Your task to perform on an android device: What's a good restaurant in Seattle? Image 0: 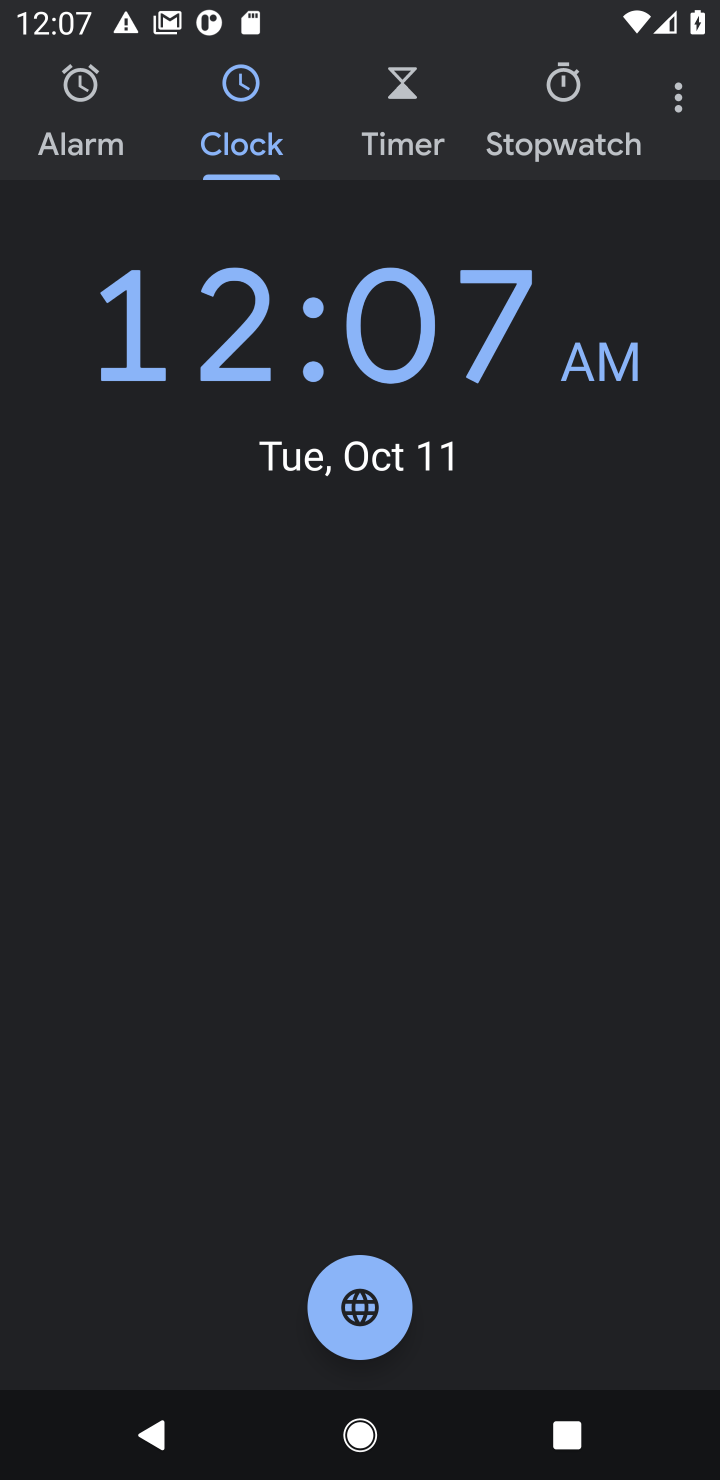
Step 0: press home button
Your task to perform on an android device: What's a good restaurant in Seattle? Image 1: 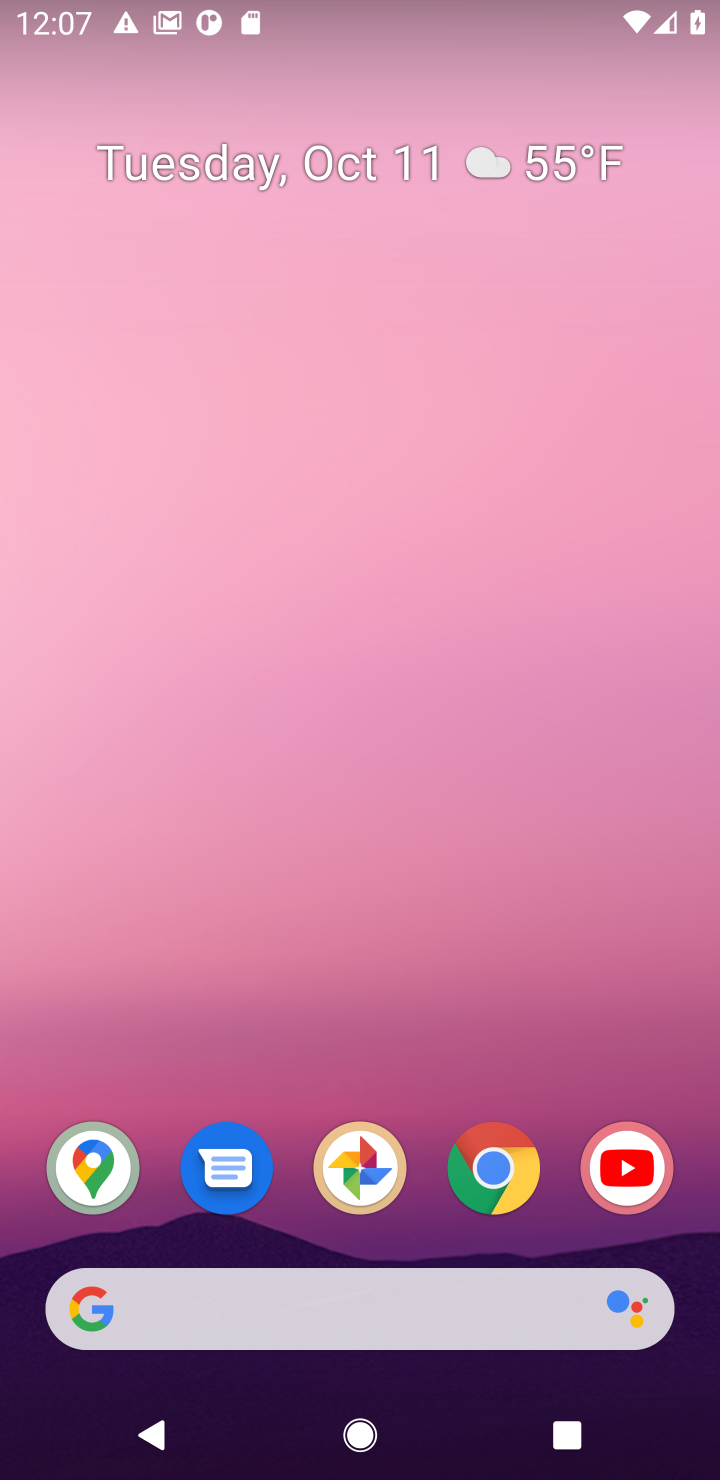
Step 1: drag from (377, 1236) to (419, 689)
Your task to perform on an android device: What's a good restaurant in Seattle? Image 2: 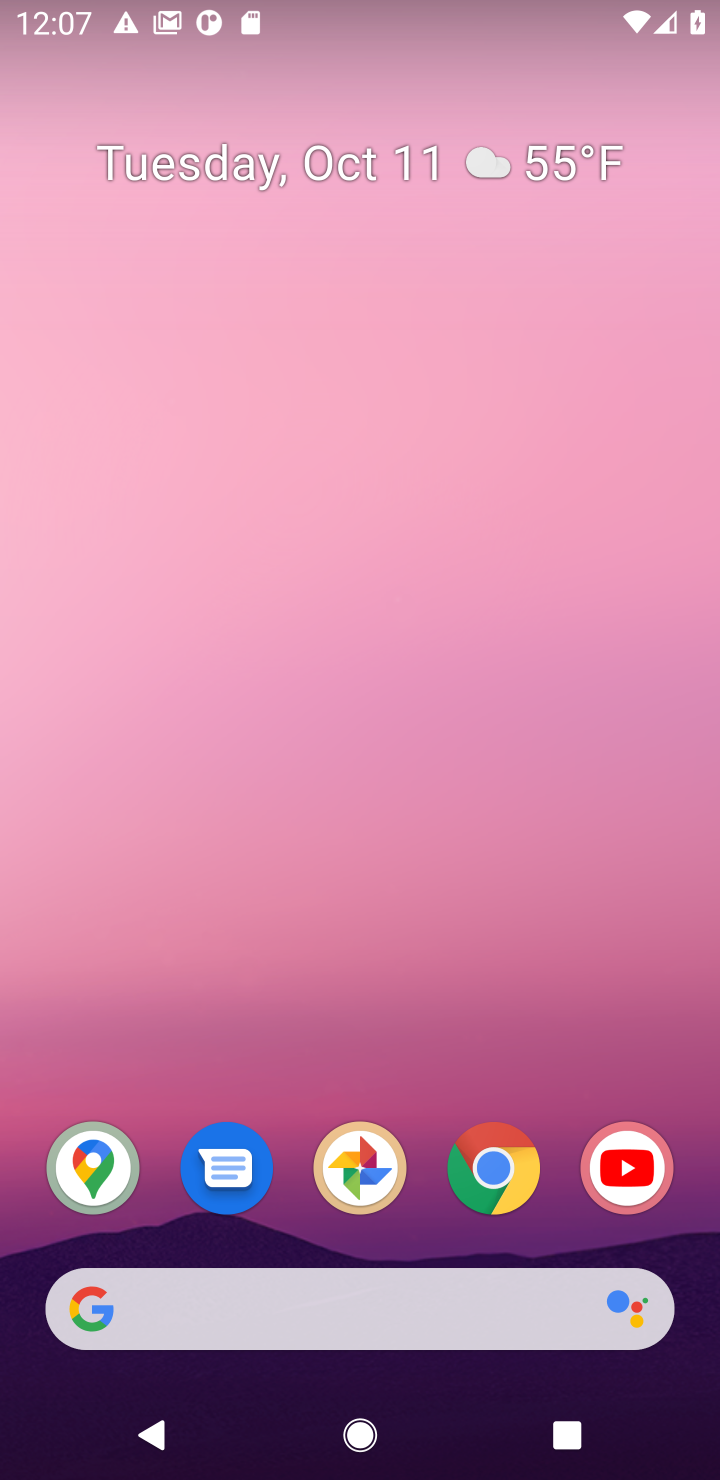
Step 2: drag from (330, 1271) to (326, 439)
Your task to perform on an android device: What's a good restaurant in Seattle? Image 3: 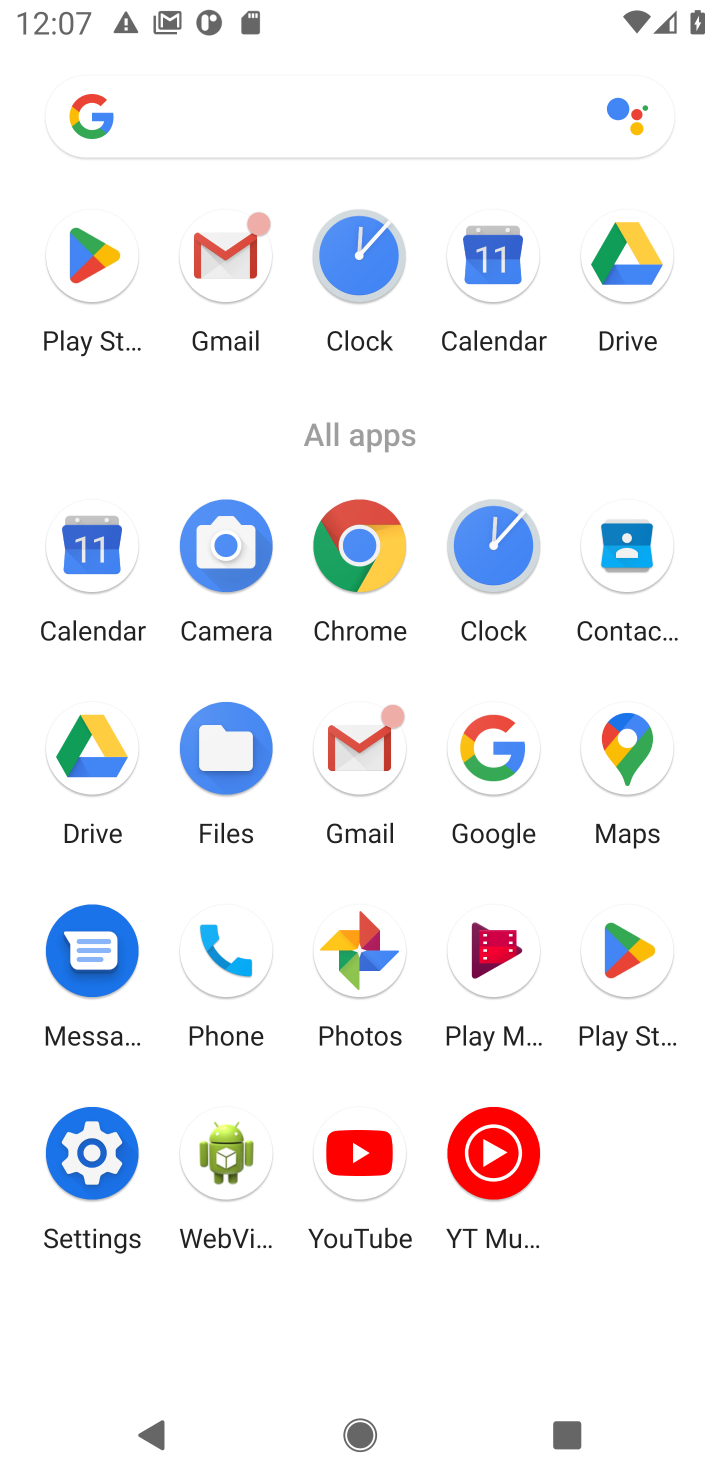
Step 3: click (465, 762)
Your task to perform on an android device: What's a good restaurant in Seattle? Image 4: 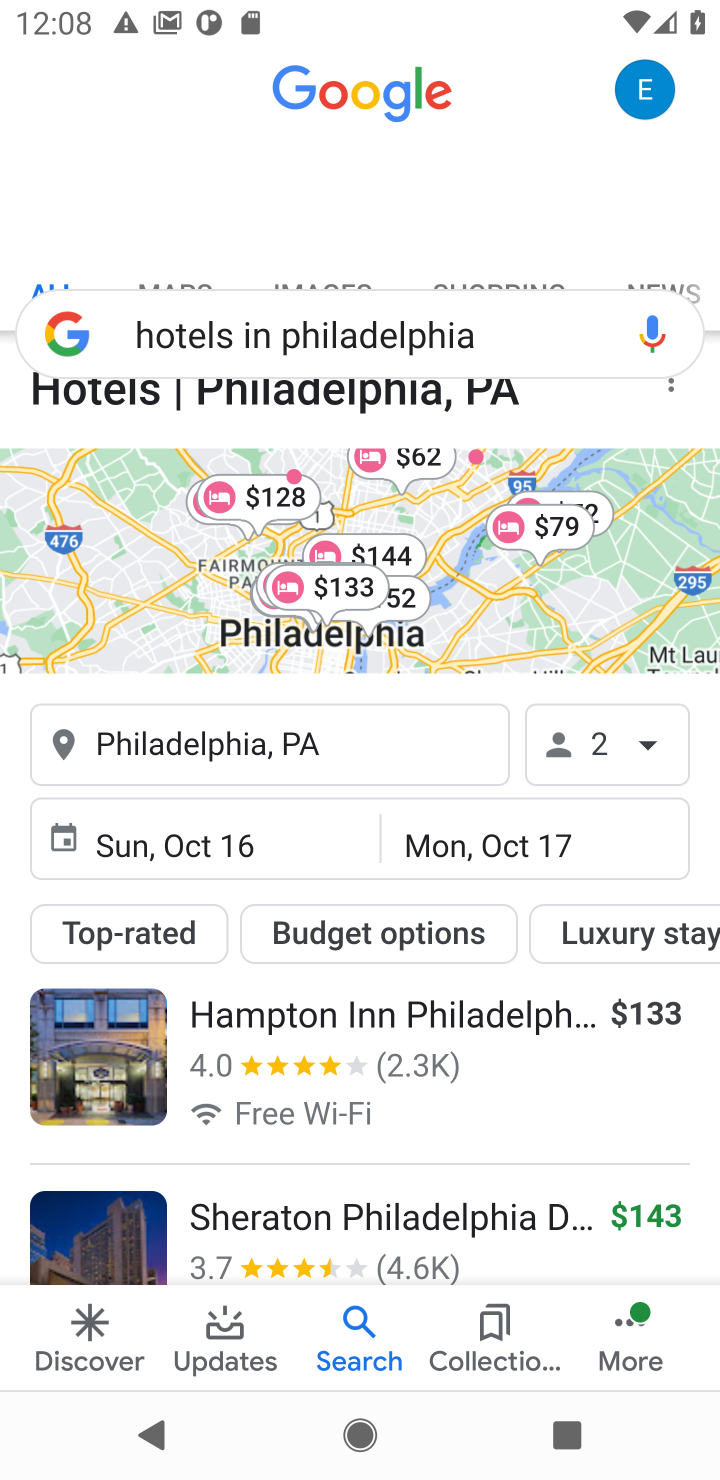
Step 4: click (487, 336)
Your task to perform on an android device: What's a good restaurant in Seattle? Image 5: 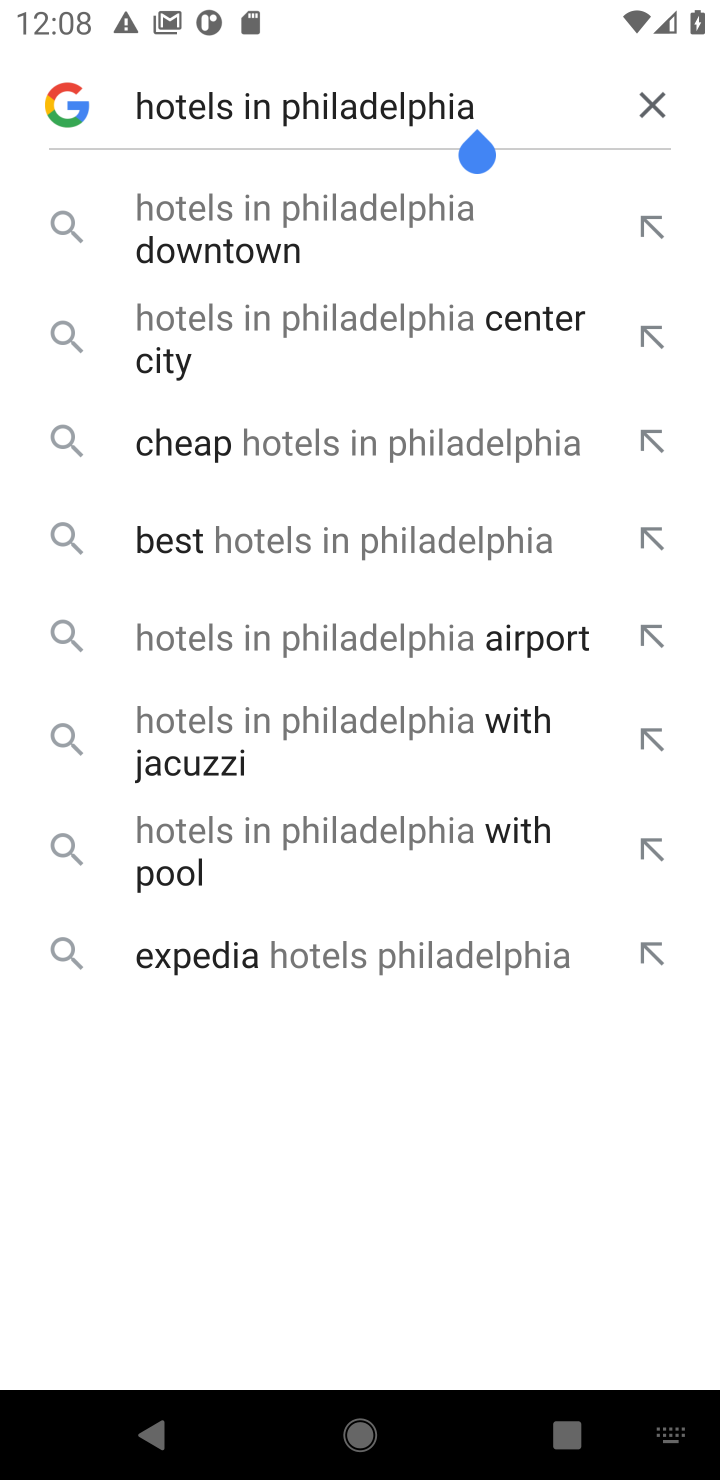
Step 5: click (657, 117)
Your task to perform on an android device: What's a good restaurant in Seattle? Image 6: 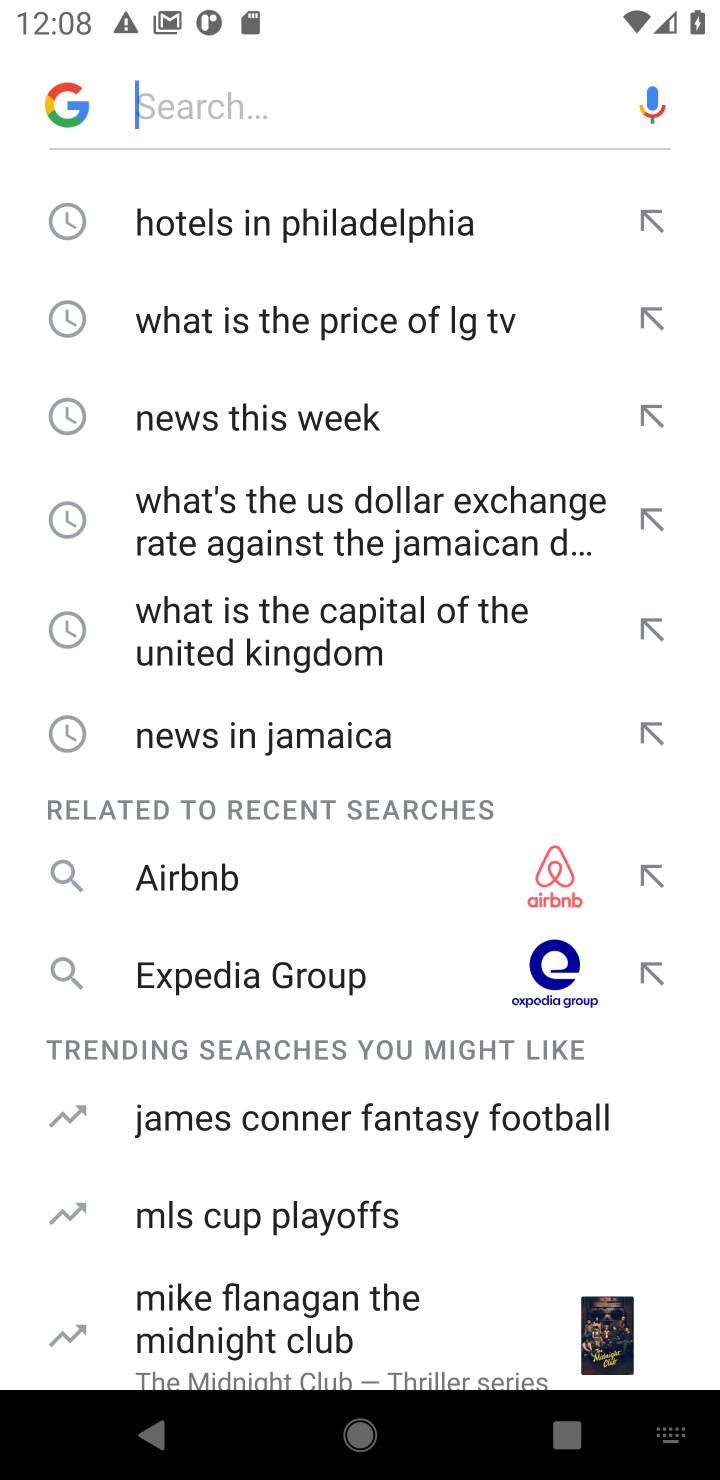
Step 6: type "good restaurant in Seattle"
Your task to perform on an android device: What's a good restaurant in Seattle? Image 7: 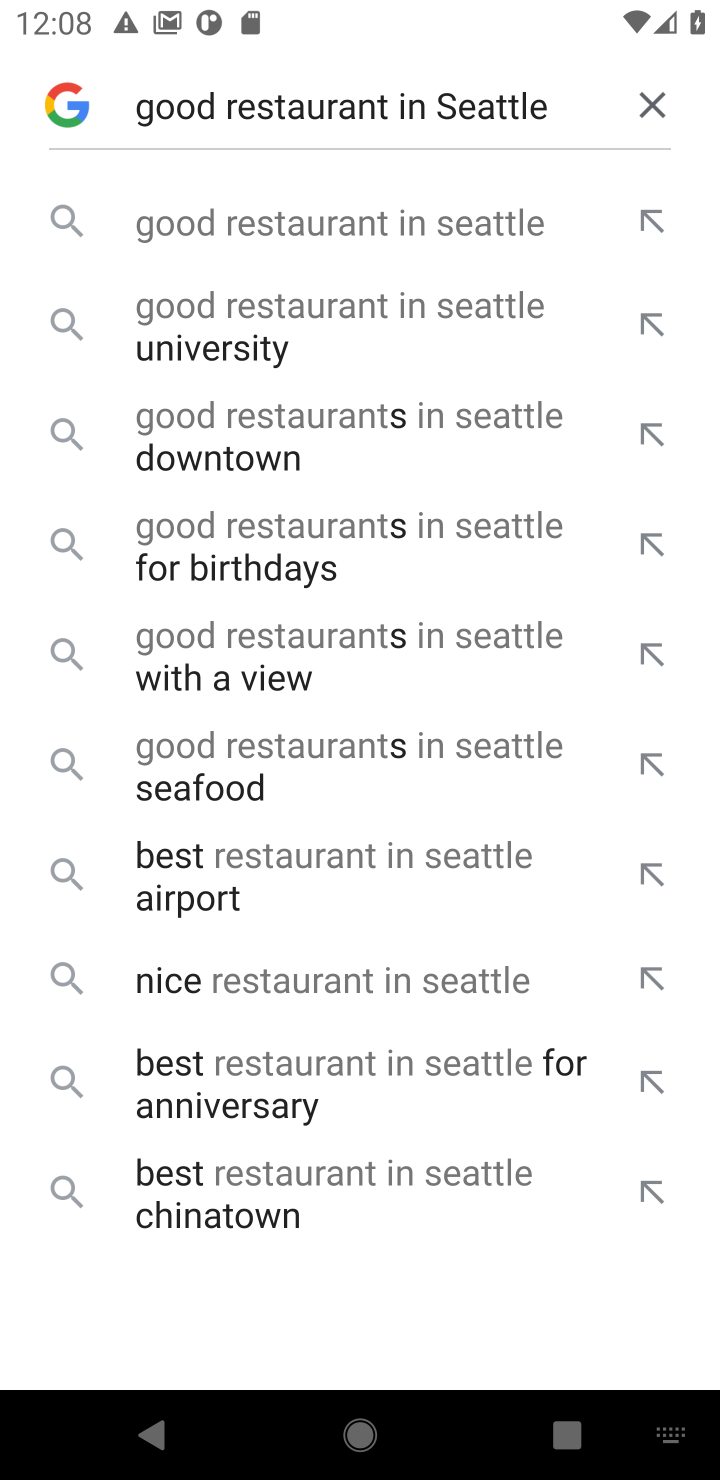
Step 7: click (481, 220)
Your task to perform on an android device: What's a good restaurant in Seattle? Image 8: 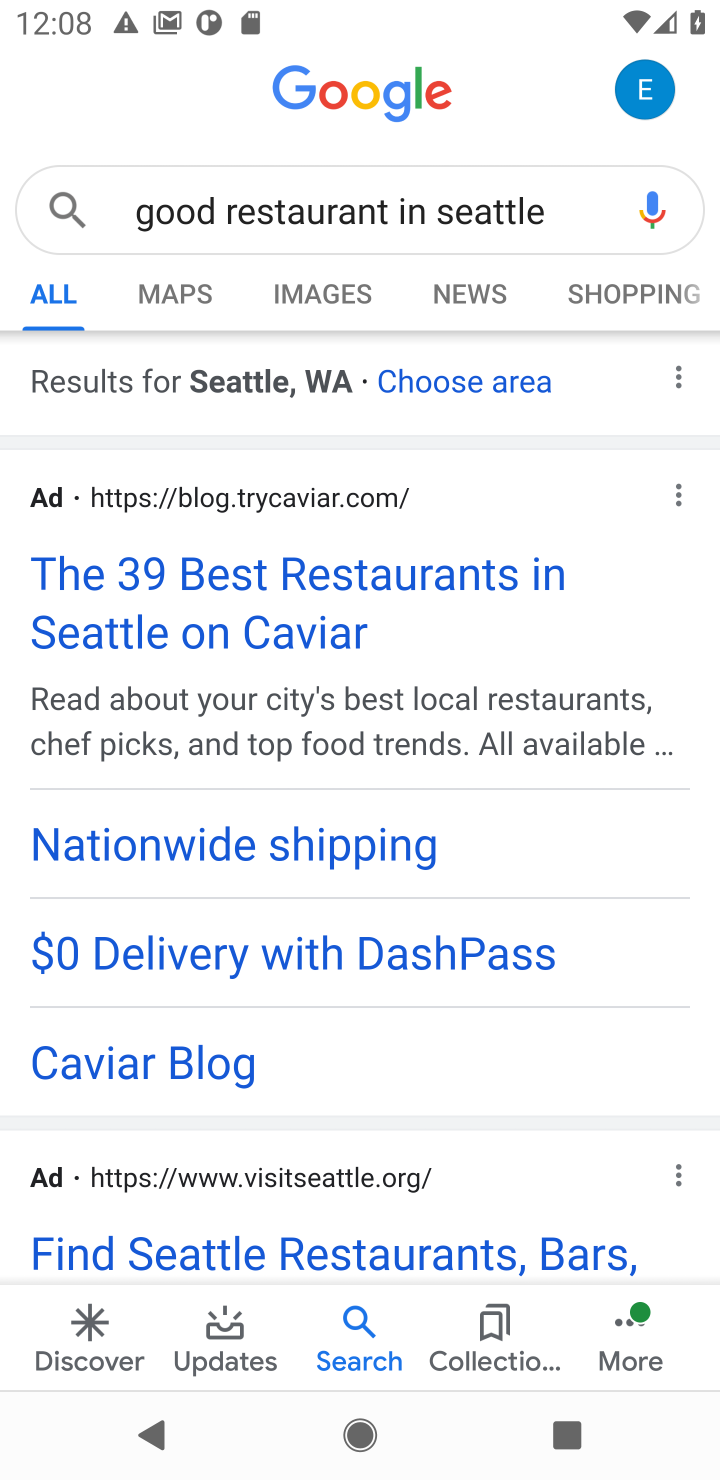
Step 8: task complete